Your task to perform on an android device: toggle sleep mode Image 0: 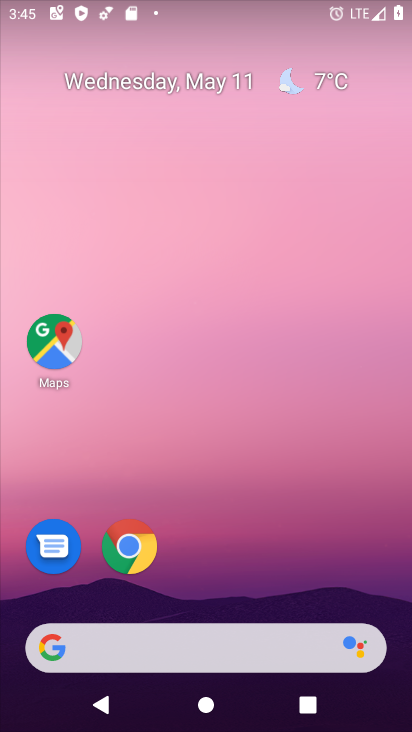
Step 0: drag from (254, 656) to (290, 0)
Your task to perform on an android device: toggle sleep mode Image 1: 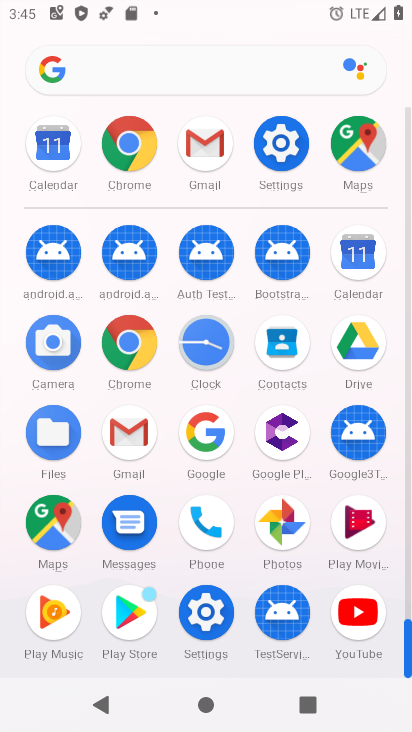
Step 1: click (270, 155)
Your task to perform on an android device: toggle sleep mode Image 2: 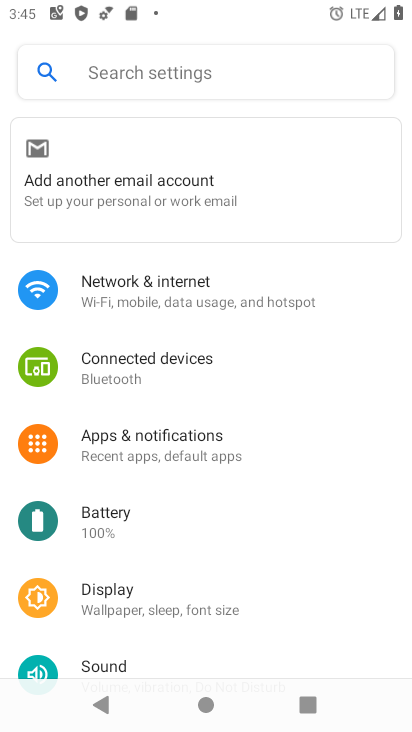
Step 2: drag from (135, 582) to (139, 438)
Your task to perform on an android device: toggle sleep mode Image 3: 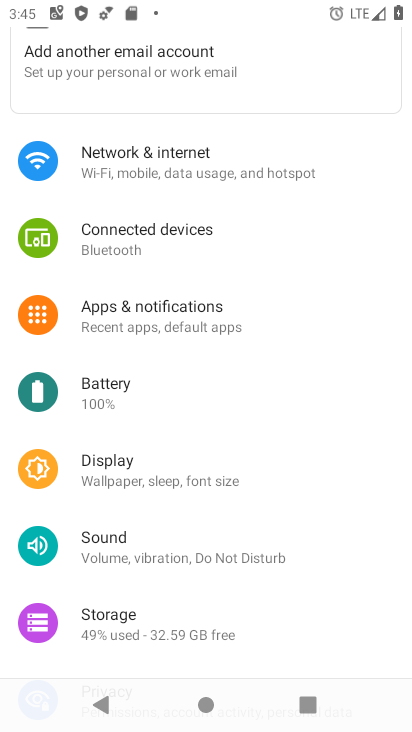
Step 3: click (156, 336)
Your task to perform on an android device: toggle sleep mode Image 4: 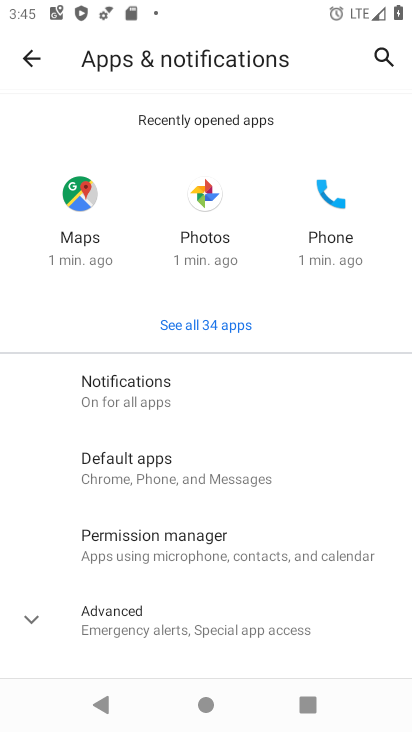
Step 4: task complete